Your task to perform on an android device: open device folders in google photos Image 0: 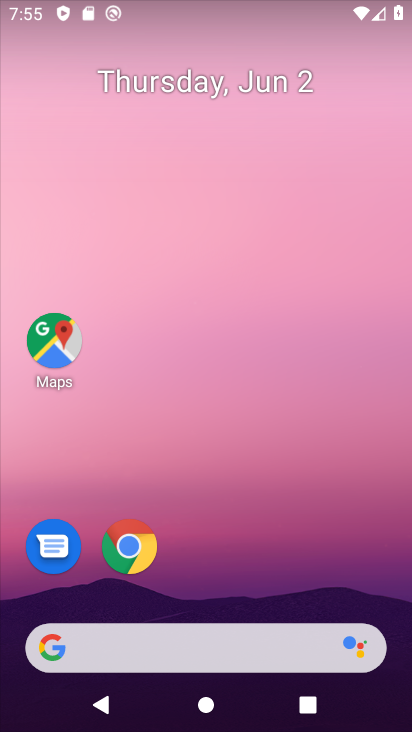
Step 0: drag from (263, 651) to (196, 176)
Your task to perform on an android device: open device folders in google photos Image 1: 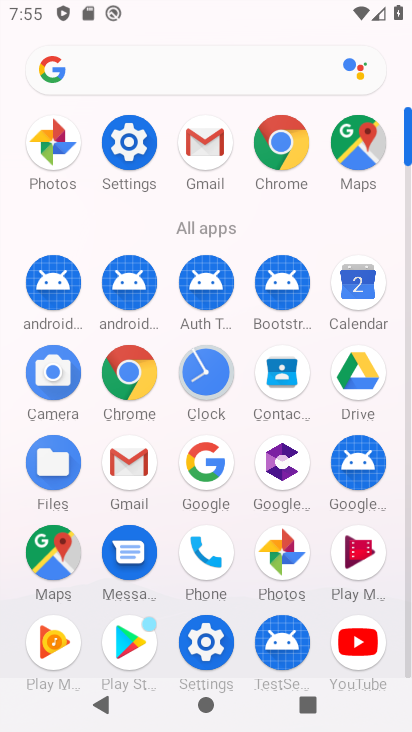
Step 1: click (285, 553)
Your task to perform on an android device: open device folders in google photos Image 2: 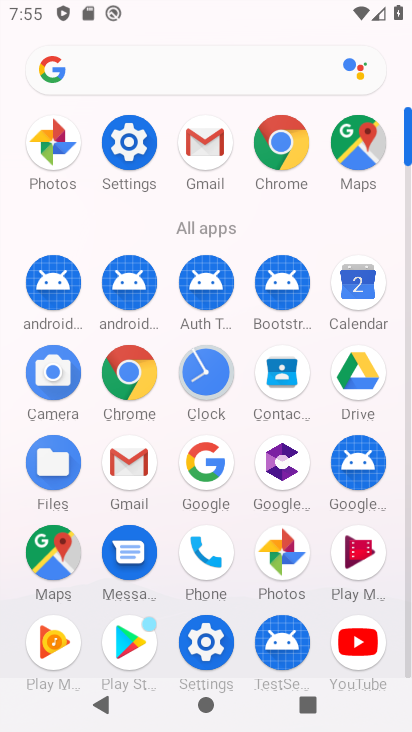
Step 2: click (284, 552)
Your task to perform on an android device: open device folders in google photos Image 3: 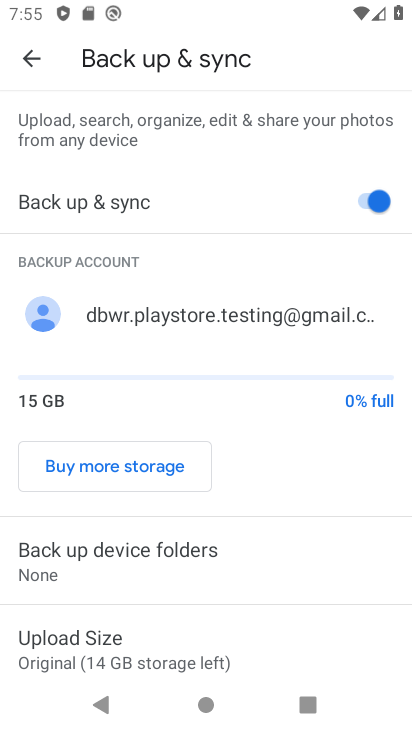
Step 3: click (25, 53)
Your task to perform on an android device: open device folders in google photos Image 4: 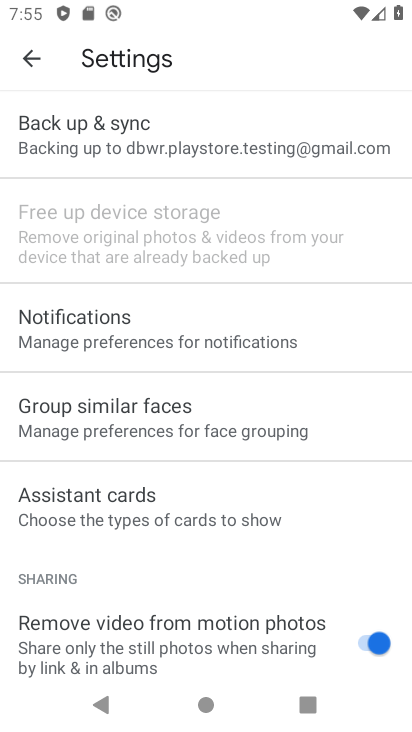
Step 4: click (29, 54)
Your task to perform on an android device: open device folders in google photos Image 5: 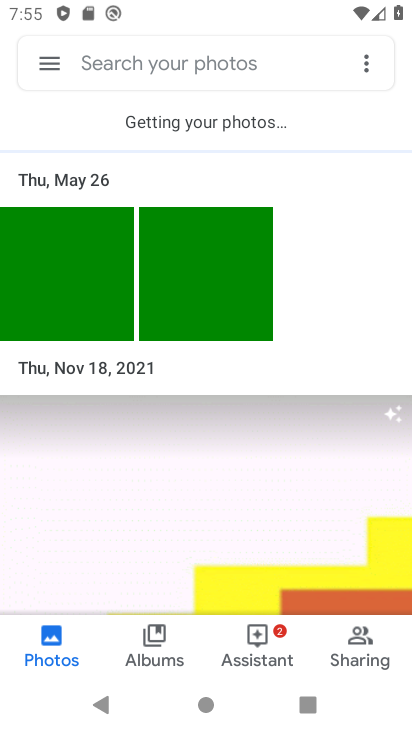
Step 5: click (37, 63)
Your task to perform on an android device: open device folders in google photos Image 6: 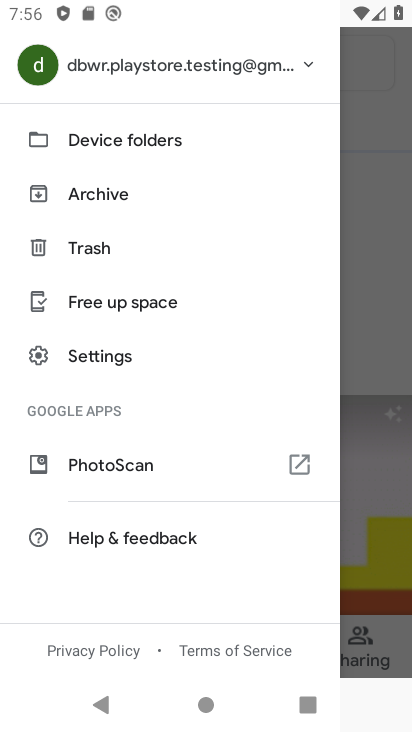
Step 6: click (135, 136)
Your task to perform on an android device: open device folders in google photos Image 7: 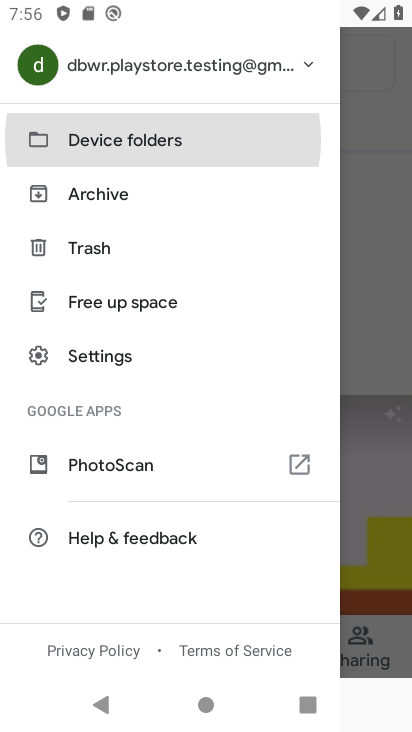
Step 7: click (135, 136)
Your task to perform on an android device: open device folders in google photos Image 8: 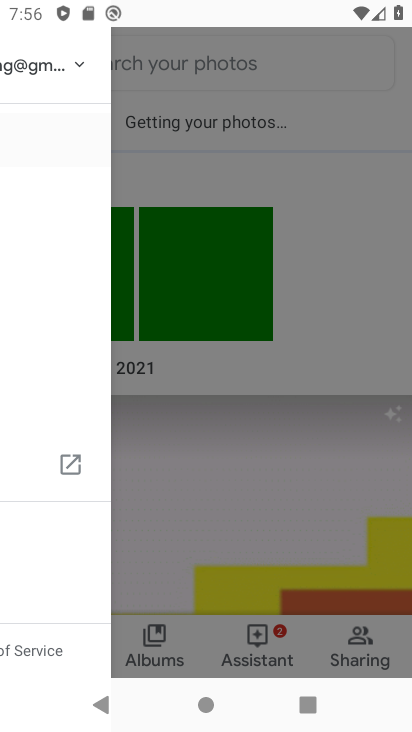
Step 8: click (135, 136)
Your task to perform on an android device: open device folders in google photos Image 9: 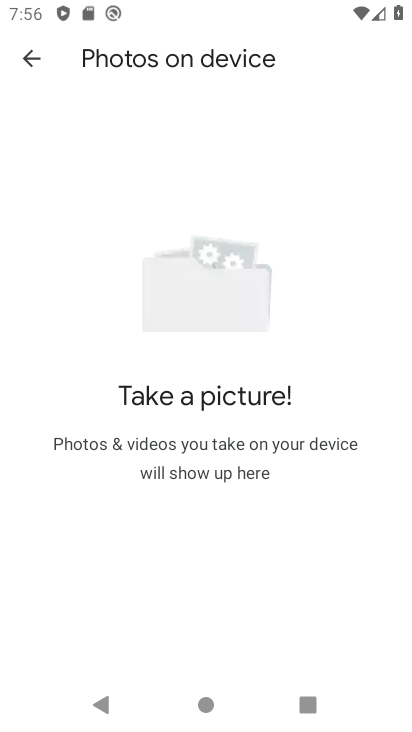
Step 9: click (19, 60)
Your task to perform on an android device: open device folders in google photos Image 10: 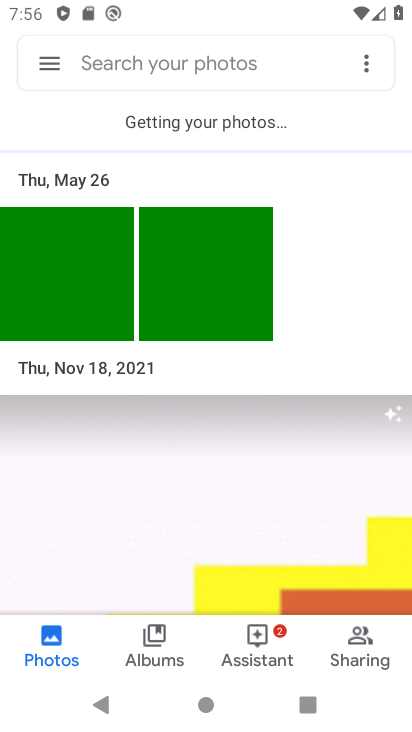
Step 10: click (61, 59)
Your task to perform on an android device: open device folders in google photos Image 11: 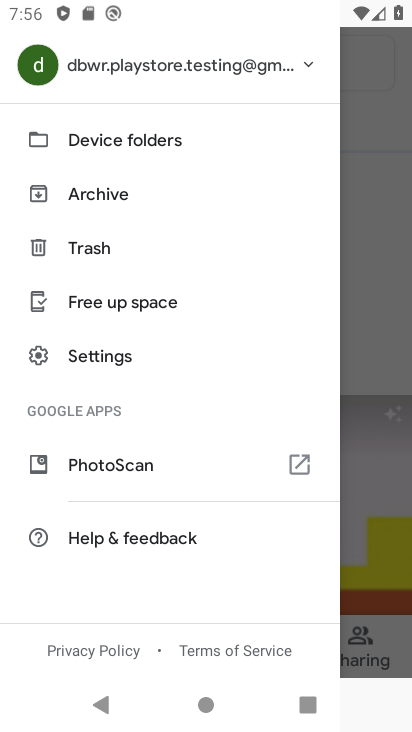
Step 11: click (108, 140)
Your task to perform on an android device: open device folders in google photos Image 12: 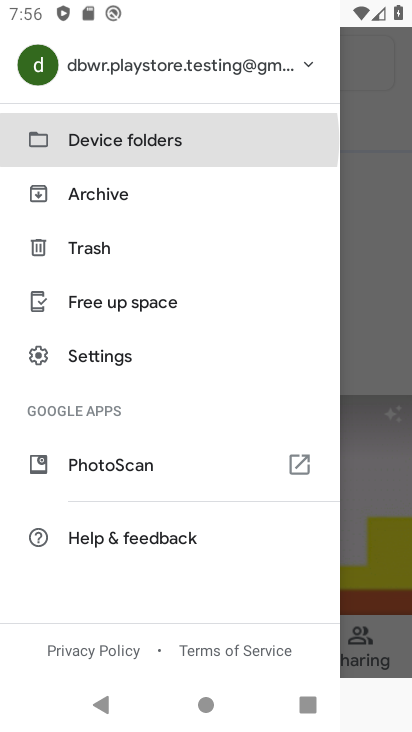
Step 12: click (108, 140)
Your task to perform on an android device: open device folders in google photos Image 13: 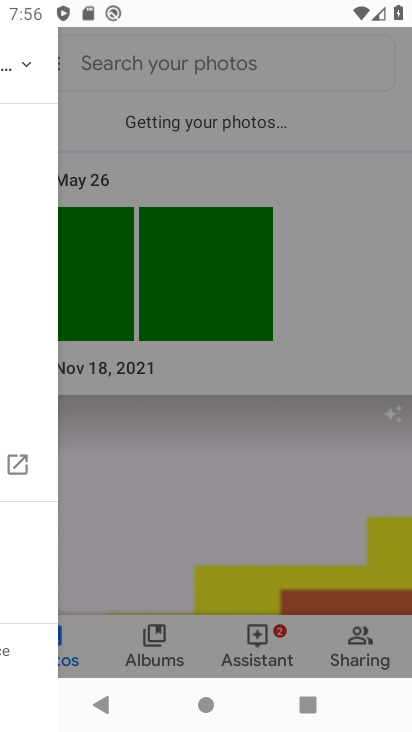
Step 13: click (108, 140)
Your task to perform on an android device: open device folders in google photos Image 14: 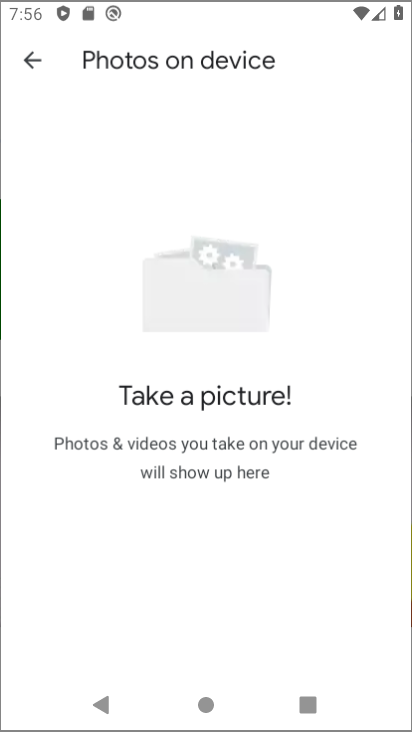
Step 14: click (108, 140)
Your task to perform on an android device: open device folders in google photos Image 15: 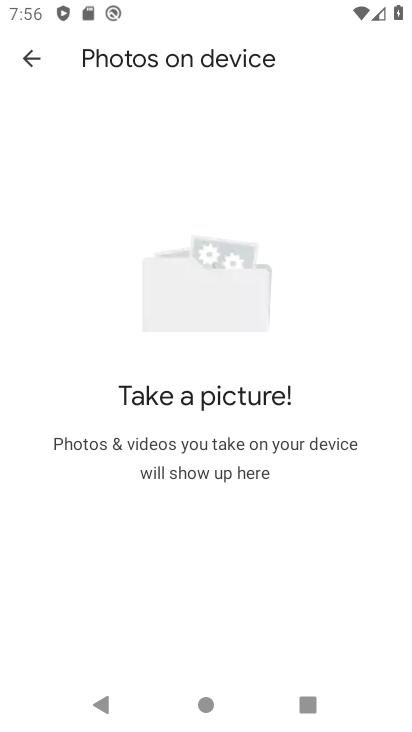
Step 15: task complete